Your task to perform on an android device: turn off smart reply in the gmail app Image 0: 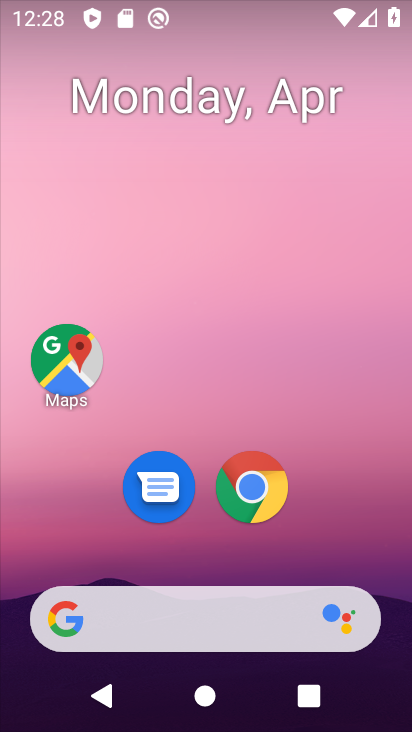
Step 0: drag from (394, 625) to (286, 67)
Your task to perform on an android device: turn off smart reply in the gmail app Image 1: 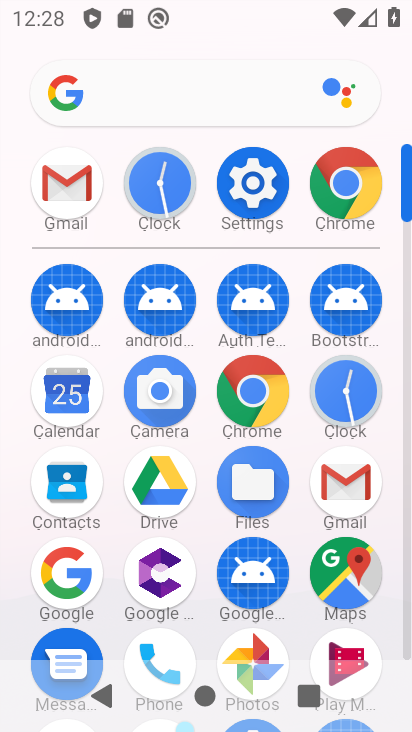
Step 1: click (334, 485)
Your task to perform on an android device: turn off smart reply in the gmail app Image 2: 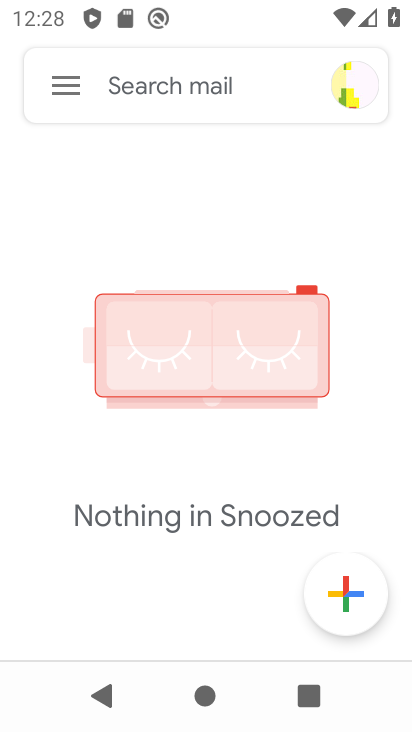
Step 2: click (69, 85)
Your task to perform on an android device: turn off smart reply in the gmail app Image 3: 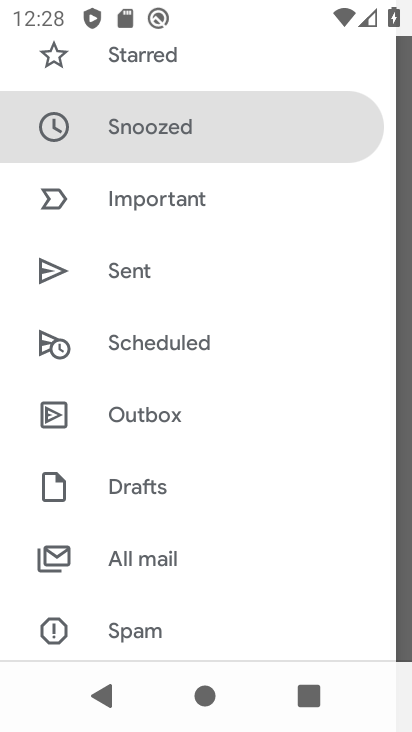
Step 3: drag from (156, 580) to (167, 154)
Your task to perform on an android device: turn off smart reply in the gmail app Image 4: 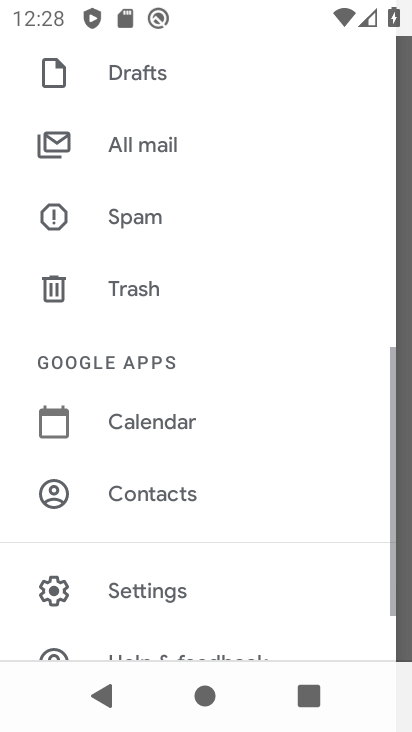
Step 4: click (166, 598)
Your task to perform on an android device: turn off smart reply in the gmail app Image 5: 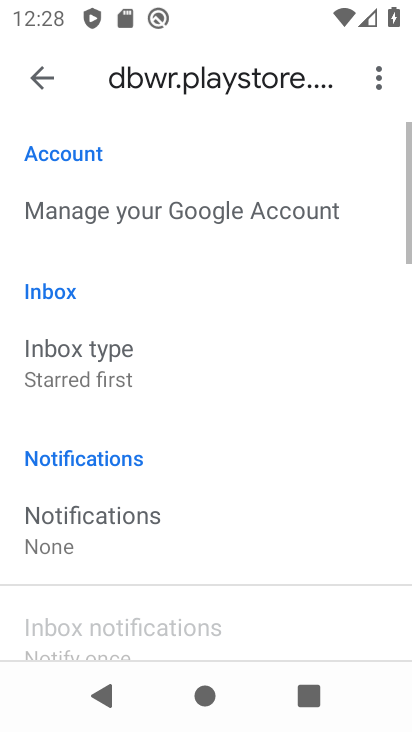
Step 5: drag from (167, 598) to (272, 56)
Your task to perform on an android device: turn off smart reply in the gmail app Image 6: 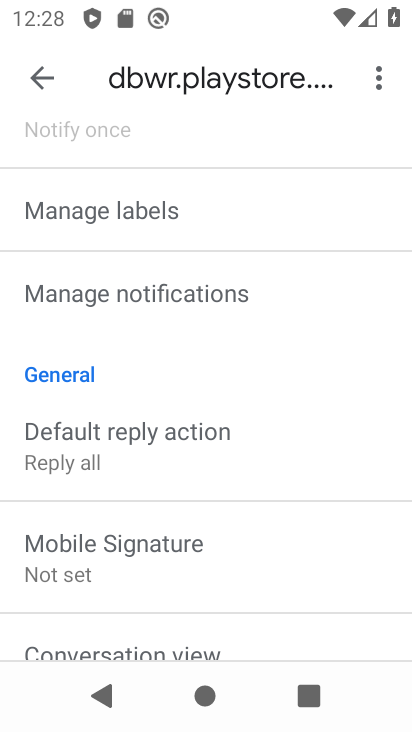
Step 6: drag from (212, 571) to (257, 249)
Your task to perform on an android device: turn off smart reply in the gmail app Image 7: 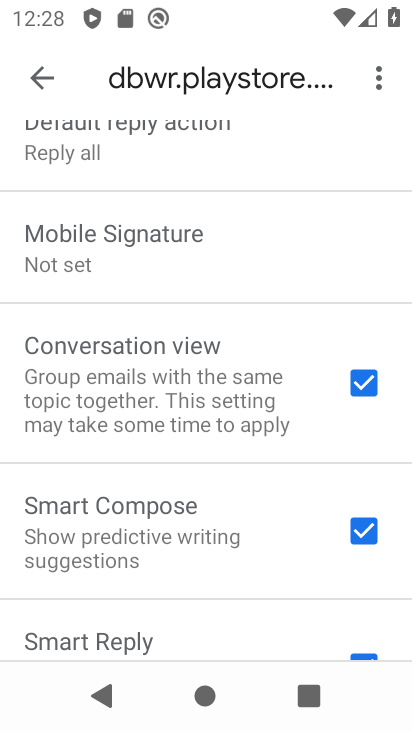
Step 7: drag from (246, 616) to (284, 423)
Your task to perform on an android device: turn off smart reply in the gmail app Image 8: 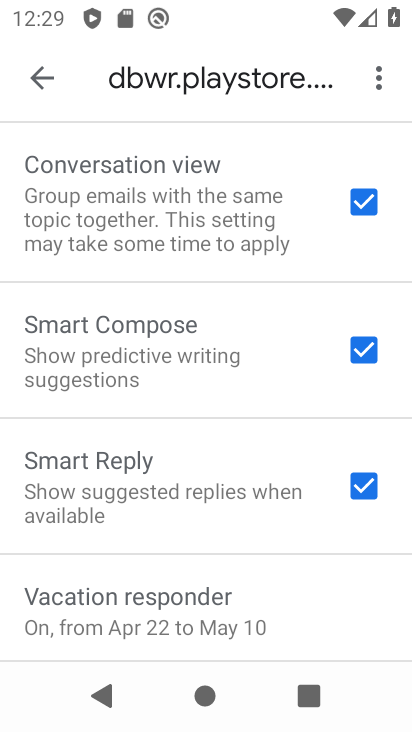
Step 8: click (217, 459)
Your task to perform on an android device: turn off smart reply in the gmail app Image 9: 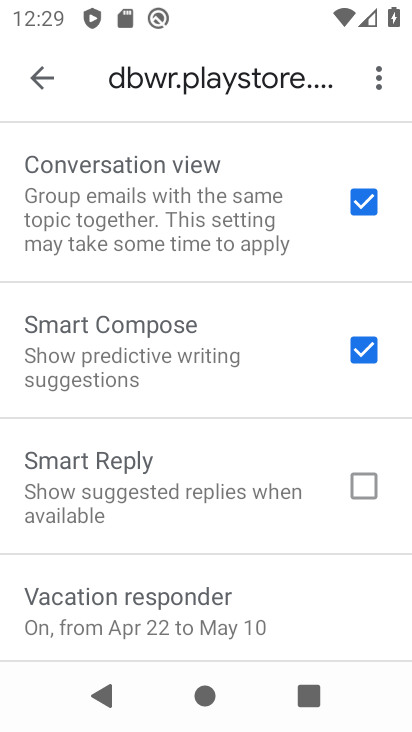
Step 9: task complete